Your task to perform on an android device: Do I have any events tomorrow? Image 0: 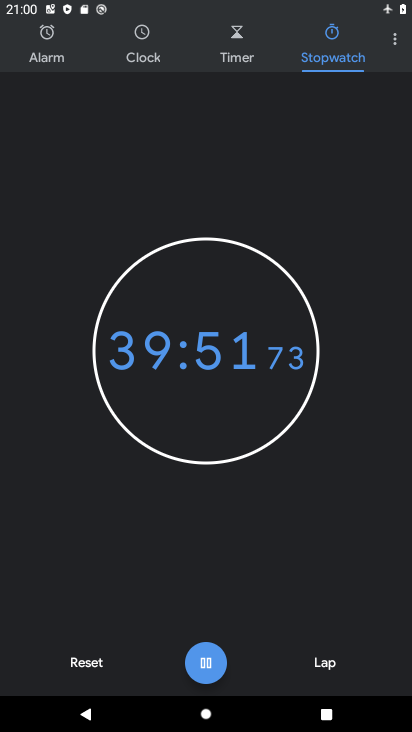
Step 0: press home button
Your task to perform on an android device: Do I have any events tomorrow? Image 1: 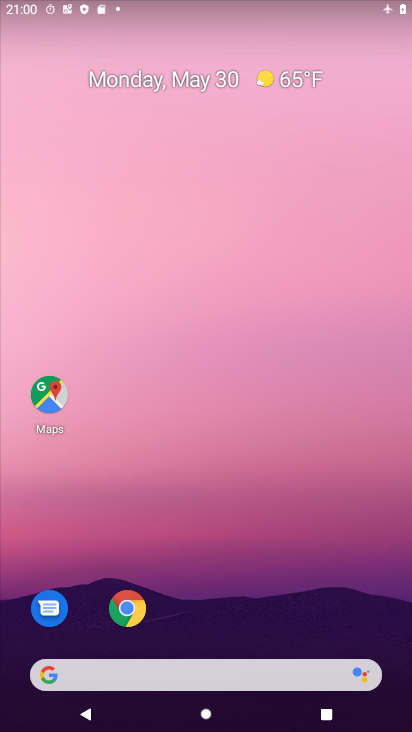
Step 1: drag from (201, 612) to (172, 199)
Your task to perform on an android device: Do I have any events tomorrow? Image 2: 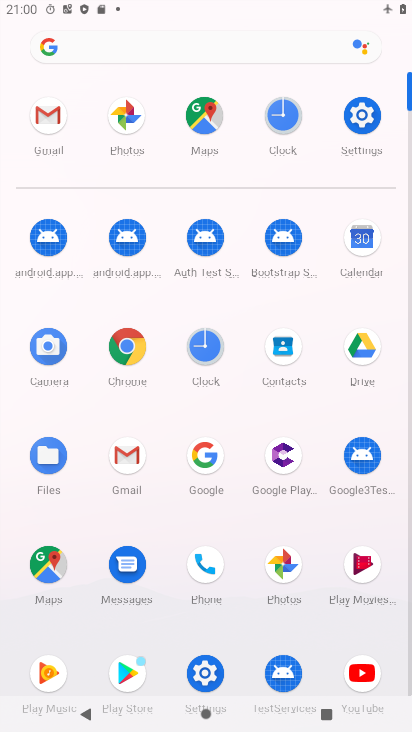
Step 2: click (345, 227)
Your task to perform on an android device: Do I have any events tomorrow? Image 3: 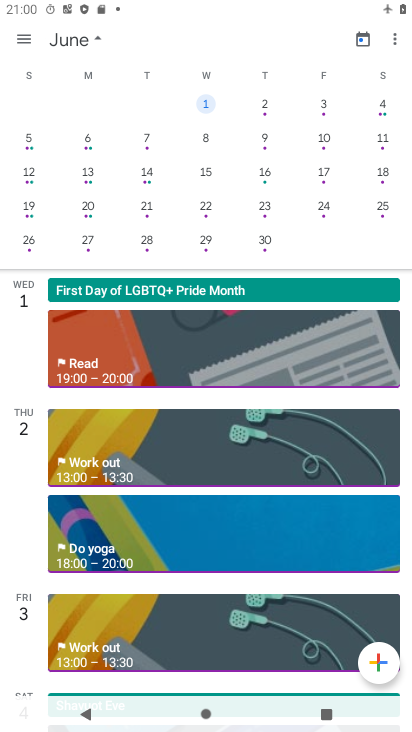
Step 3: drag from (56, 168) to (411, 170)
Your task to perform on an android device: Do I have any events tomorrow? Image 4: 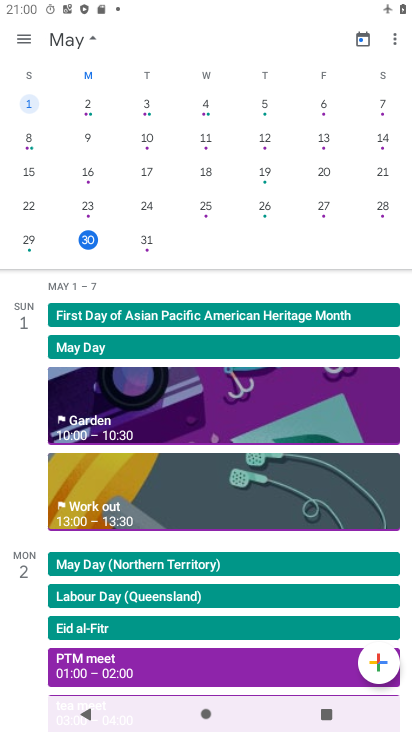
Step 4: click (143, 245)
Your task to perform on an android device: Do I have any events tomorrow? Image 5: 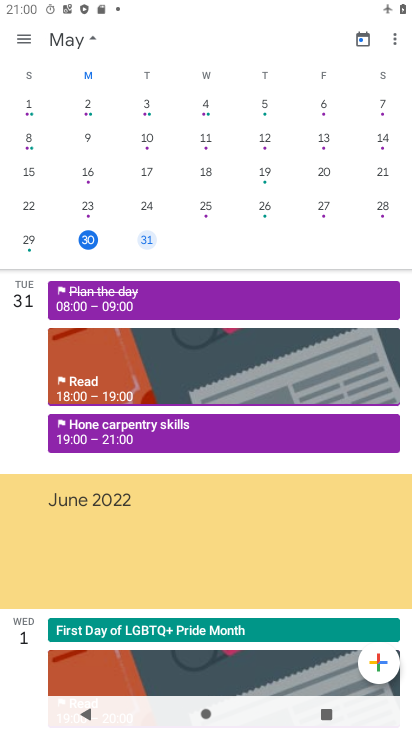
Step 5: task complete